Your task to perform on an android device: How do I get to the nearest JCPenney? Image 0: 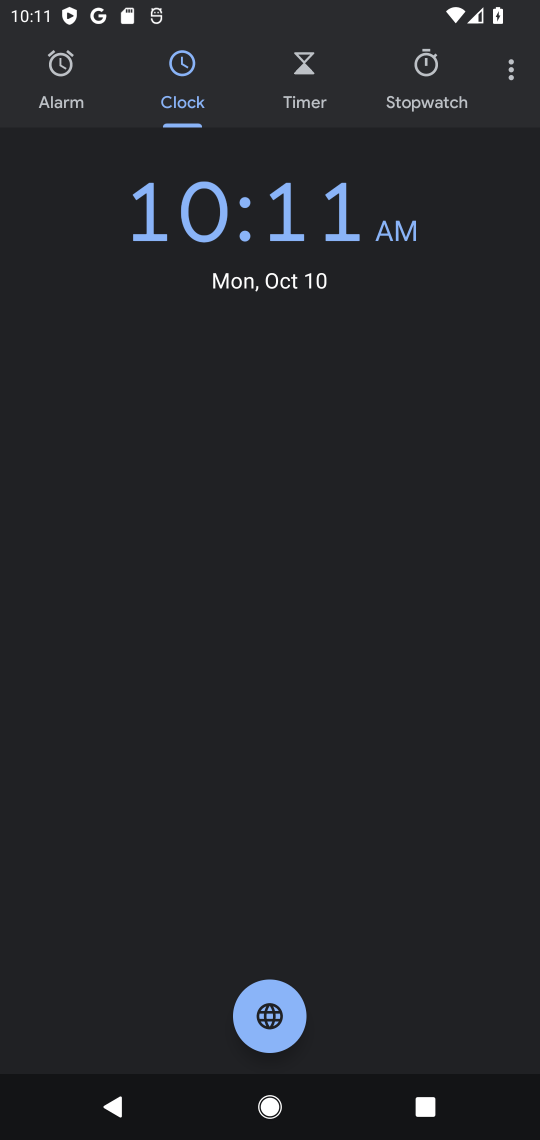
Step 0: press home button
Your task to perform on an android device: How do I get to the nearest JCPenney? Image 1: 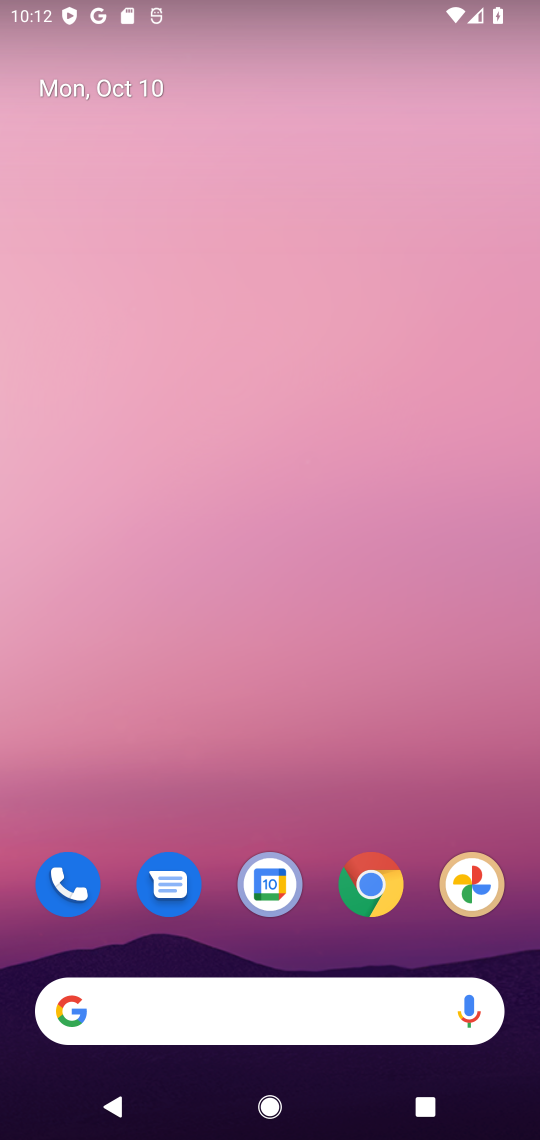
Step 1: drag from (342, 918) to (284, 93)
Your task to perform on an android device: How do I get to the nearest JCPenney? Image 2: 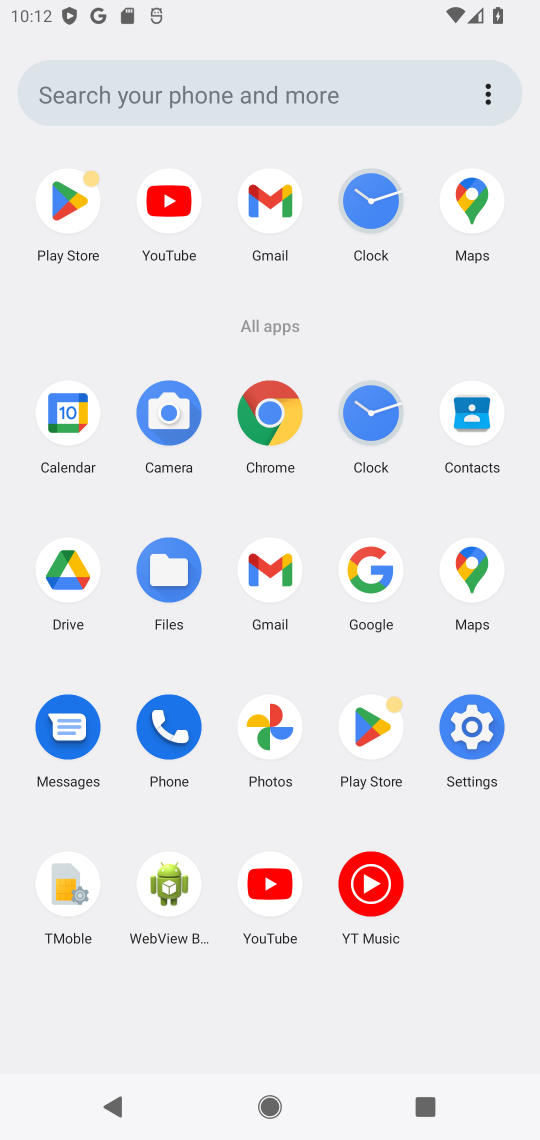
Step 2: click (388, 567)
Your task to perform on an android device: How do I get to the nearest JCPenney? Image 3: 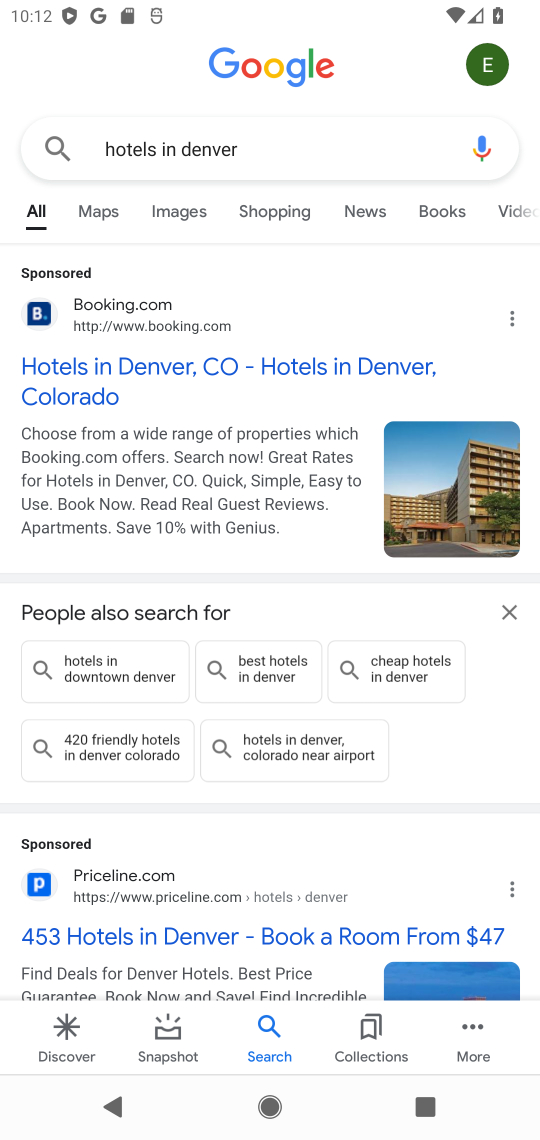
Step 3: click (307, 155)
Your task to perform on an android device: How do I get to the nearest JCPenney? Image 4: 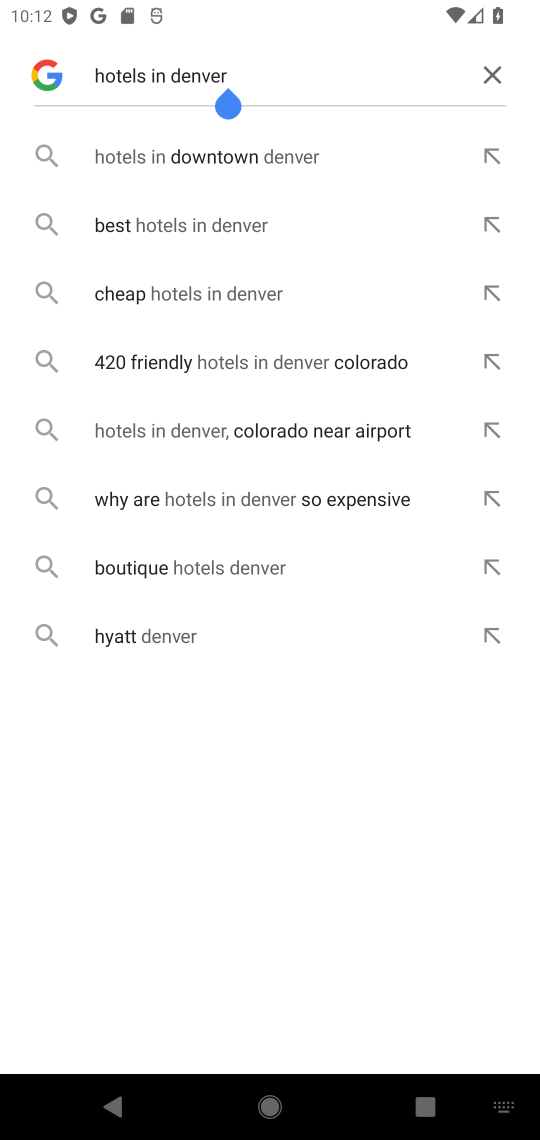
Step 4: click (495, 71)
Your task to perform on an android device: How do I get to the nearest JCPenney? Image 5: 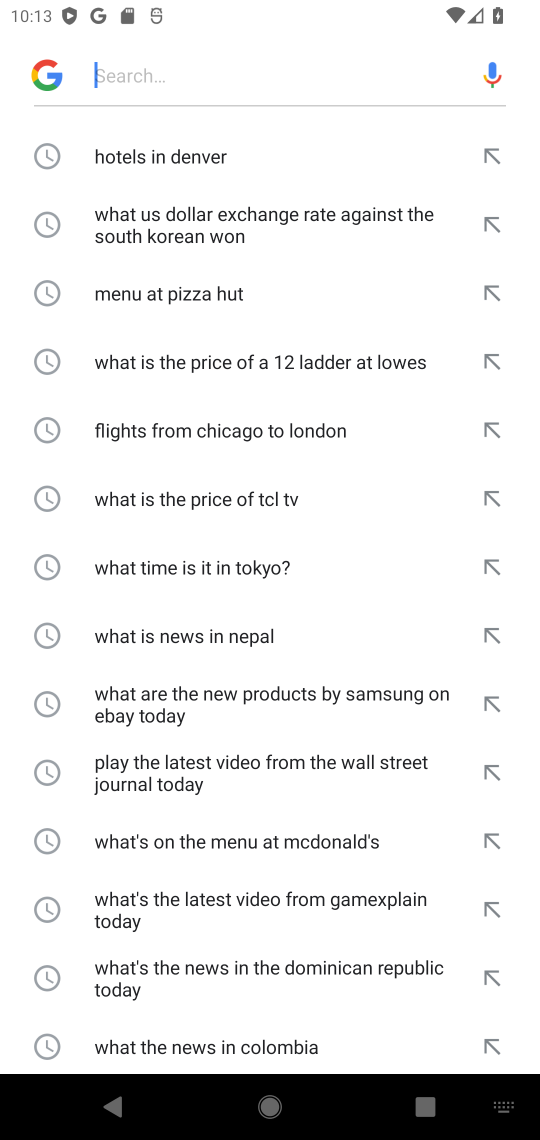
Step 5: type "How do I get to the nearest JCPenney?"
Your task to perform on an android device: How do I get to the nearest JCPenney? Image 6: 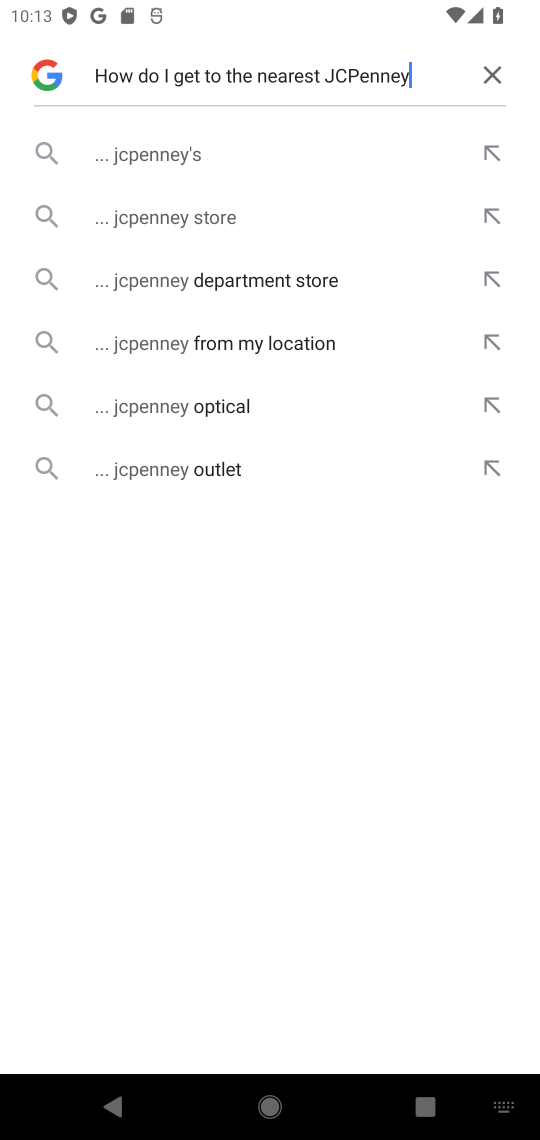
Step 6: type ""
Your task to perform on an android device: How do I get to the nearest JCPenney? Image 7: 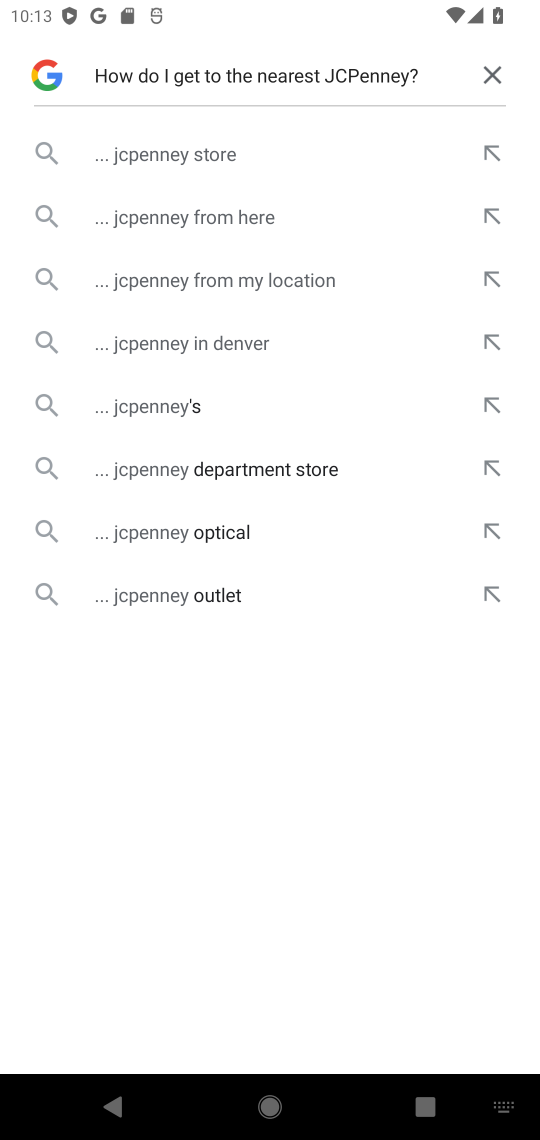
Step 7: click (180, 403)
Your task to perform on an android device: How do I get to the nearest JCPenney? Image 8: 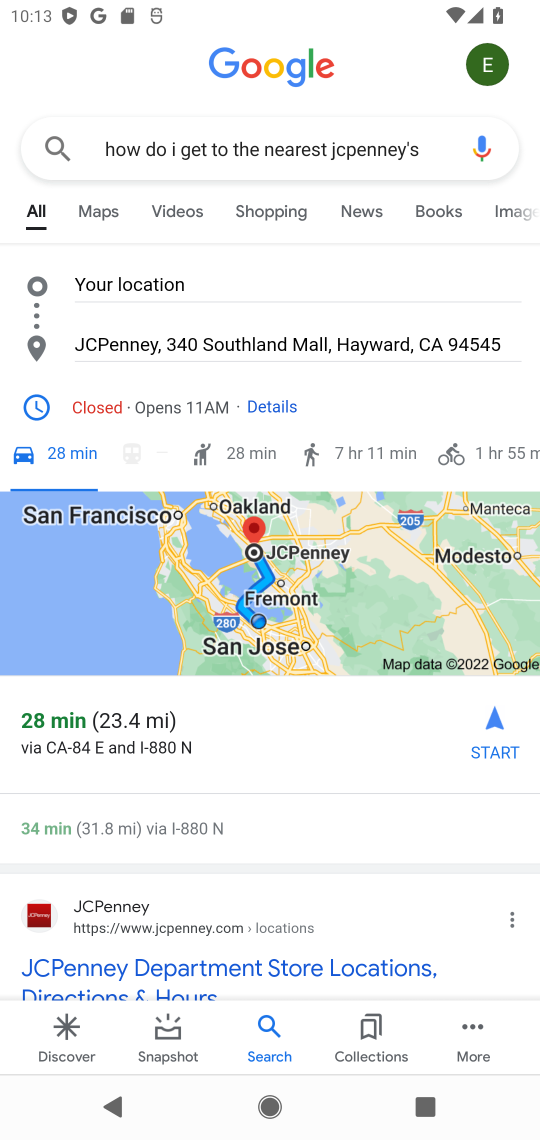
Step 8: task complete